Your task to perform on an android device: Open Google Image 0: 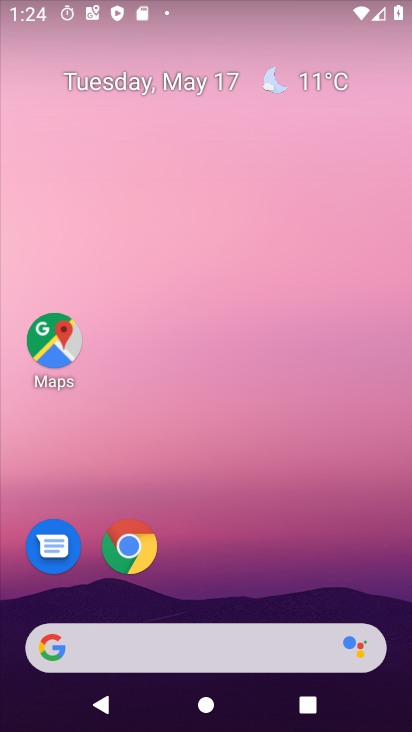
Step 0: press home button
Your task to perform on an android device: Open Google Image 1: 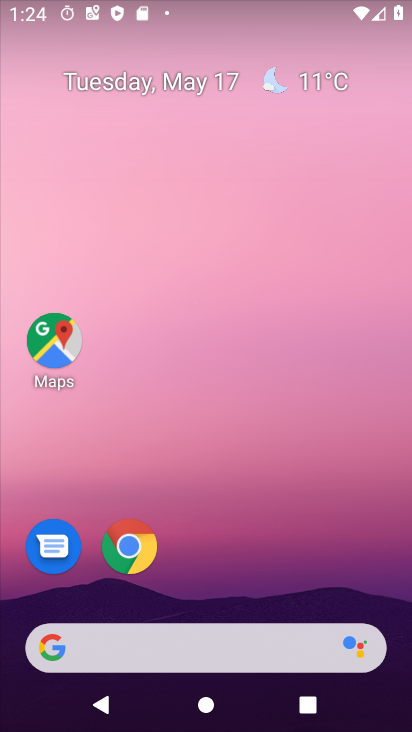
Step 1: drag from (161, 644) to (353, 85)
Your task to perform on an android device: Open Google Image 2: 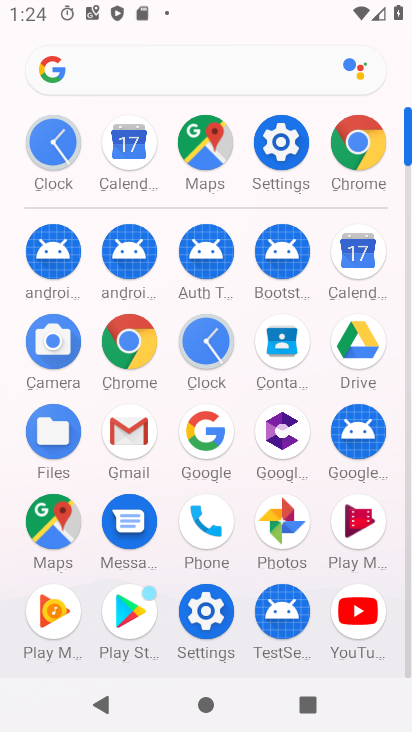
Step 2: click (212, 435)
Your task to perform on an android device: Open Google Image 3: 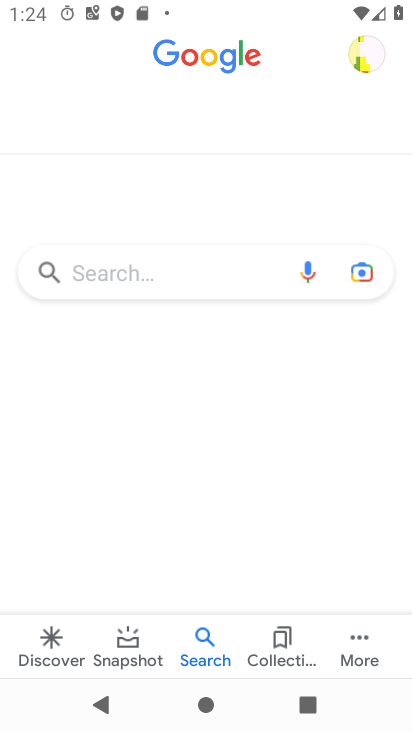
Step 3: click (64, 660)
Your task to perform on an android device: Open Google Image 4: 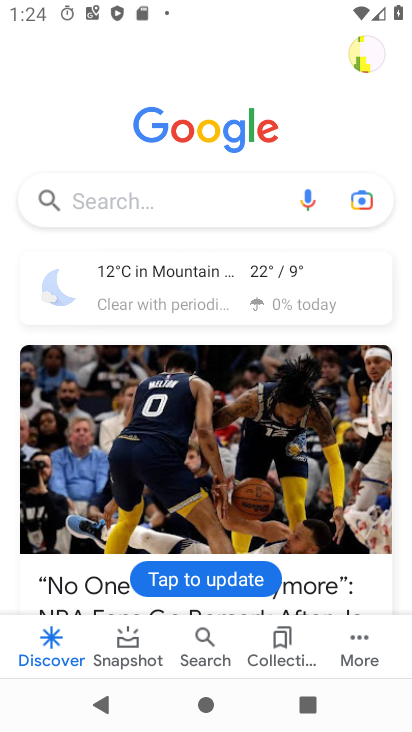
Step 4: task complete